Your task to perform on an android device: check battery use Image 0: 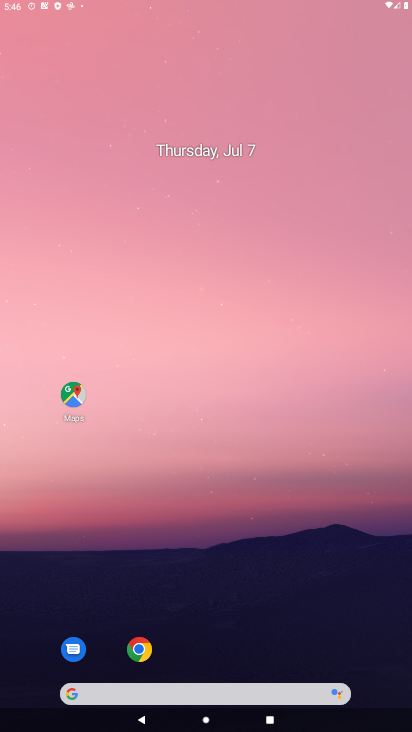
Step 0: click (197, 57)
Your task to perform on an android device: check battery use Image 1: 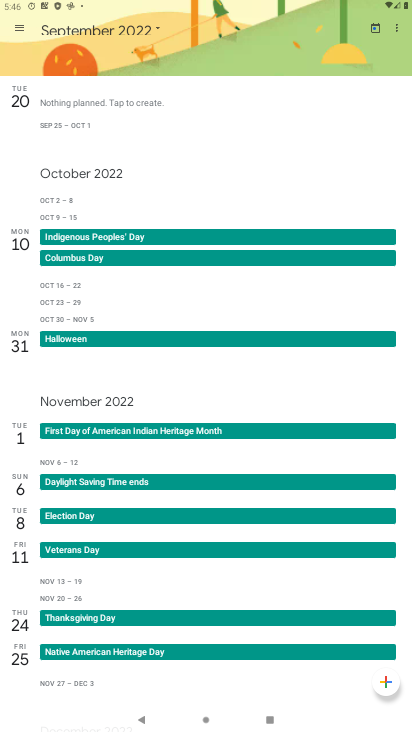
Step 1: drag from (353, 649) to (244, 156)
Your task to perform on an android device: check battery use Image 2: 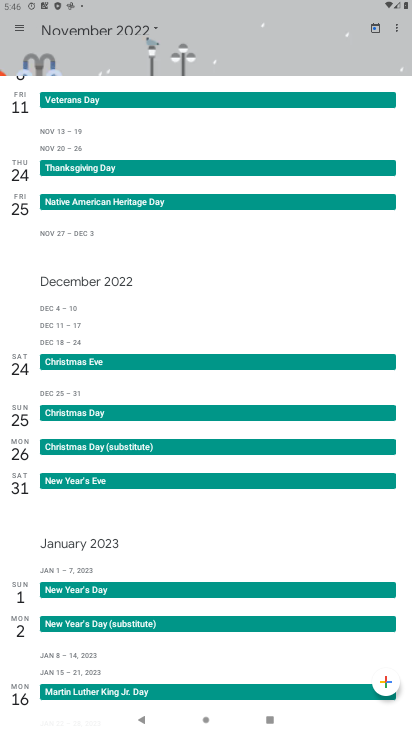
Step 2: press home button
Your task to perform on an android device: check battery use Image 3: 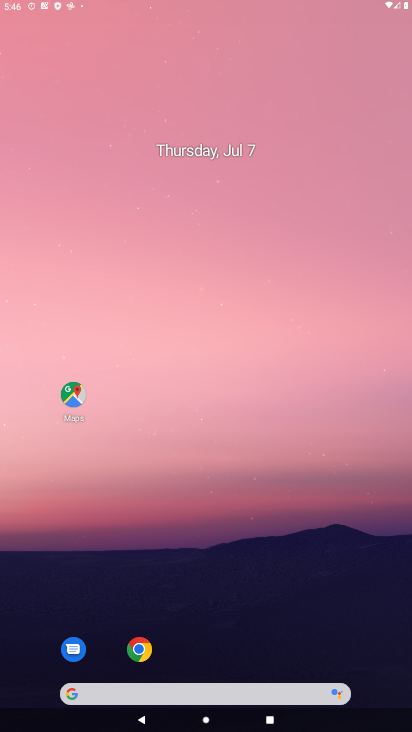
Step 3: drag from (383, 666) to (249, 23)
Your task to perform on an android device: check battery use Image 4: 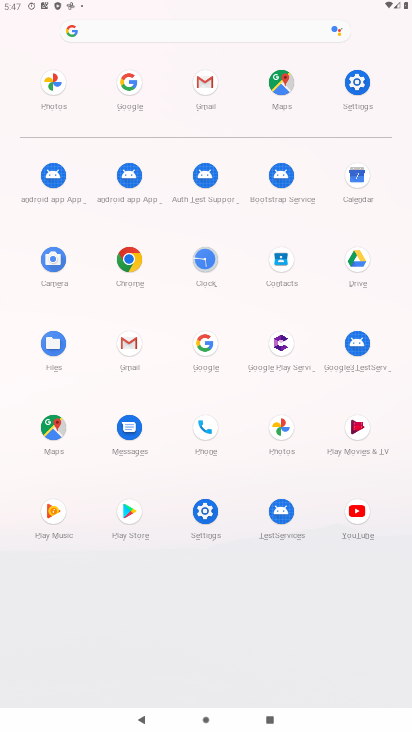
Step 4: click (348, 78)
Your task to perform on an android device: check battery use Image 5: 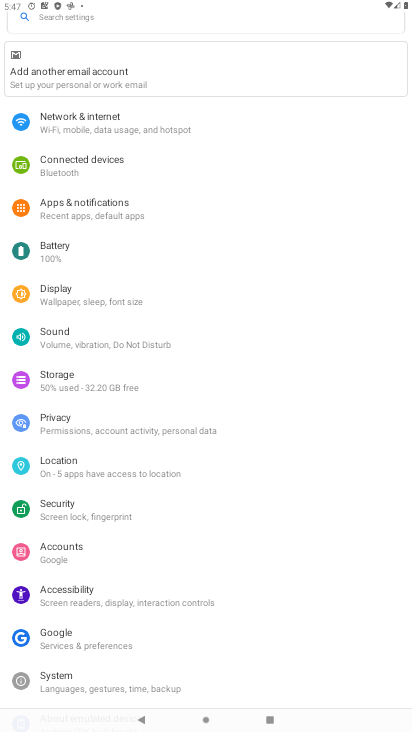
Step 5: click (88, 241)
Your task to perform on an android device: check battery use Image 6: 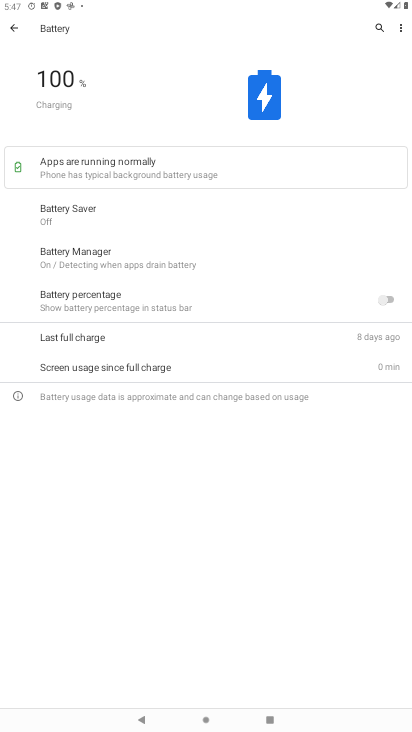
Step 6: click (399, 26)
Your task to perform on an android device: check battery use Image 7: 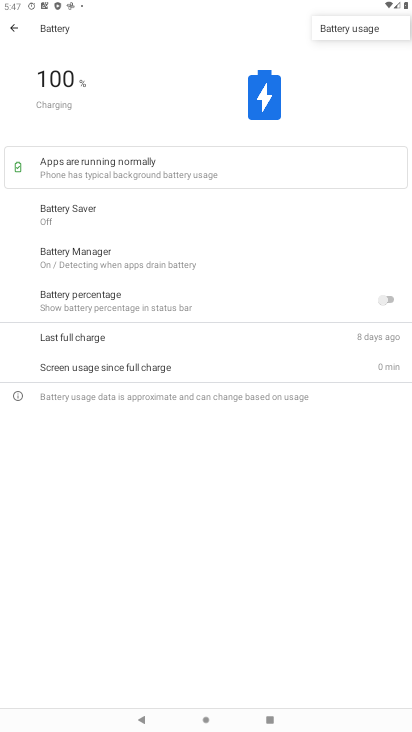
Step 7: click (323, 32)
Your task to perform on an android device: check battery use Image 8: 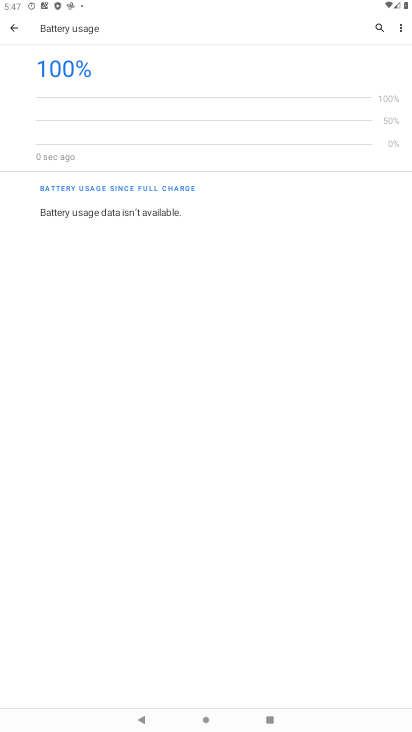
Step 8: task complete